Your task to perform on an android device: Open Google Chrome and open the bookmarks view Image 0: 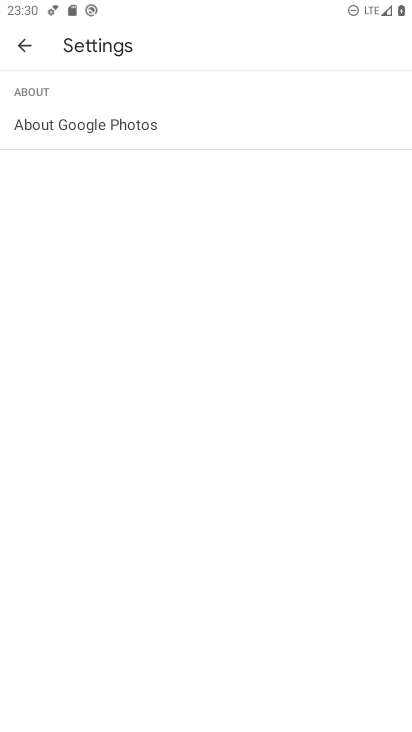
Step 0: press home button
Your task to perform on an android device: Open Google Chrome and open the bookmarks view Image 1: 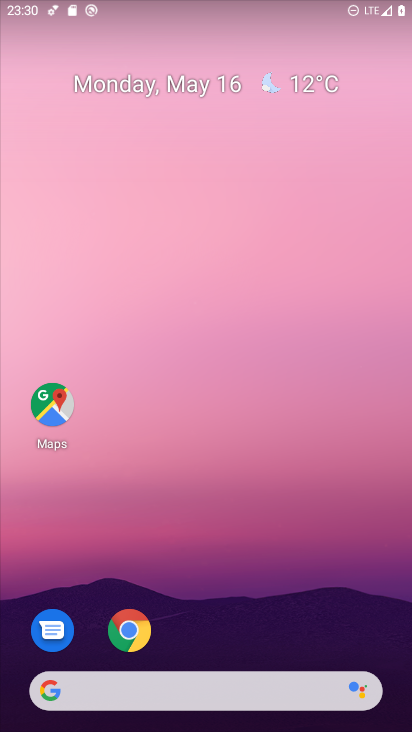
Step 1: drag from (257, 600) to (284, 120)
Your task to perform on an android device: Open Google Chrome and open the bookmarks view Image 2: 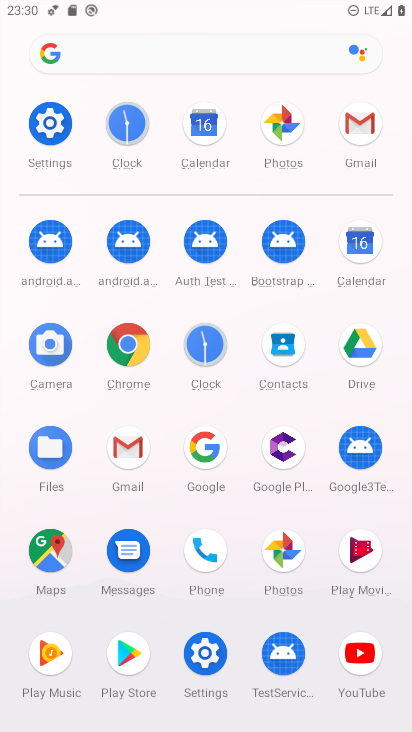
Step 2: click (136, 345)
Your task to perform on an android device: Open Google Chrome and open the bookmarks view Image 3: 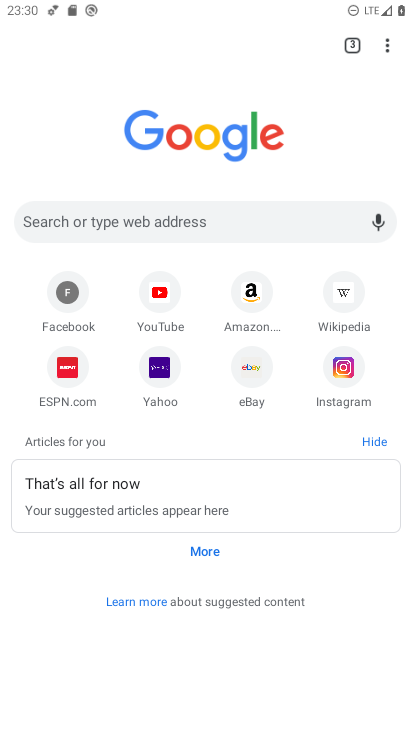
Step 3: click (386, 43)
Your task to perform on an android device: Open Google Chrome and open the bookmarks view Image 4: 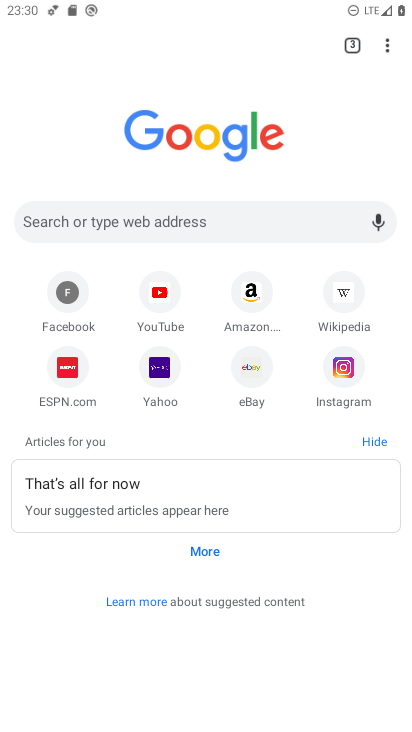
Step 4: click (381, 44)
Your task to perform on an android device: Open Google Chrome and open the bookmarks view Image 5: 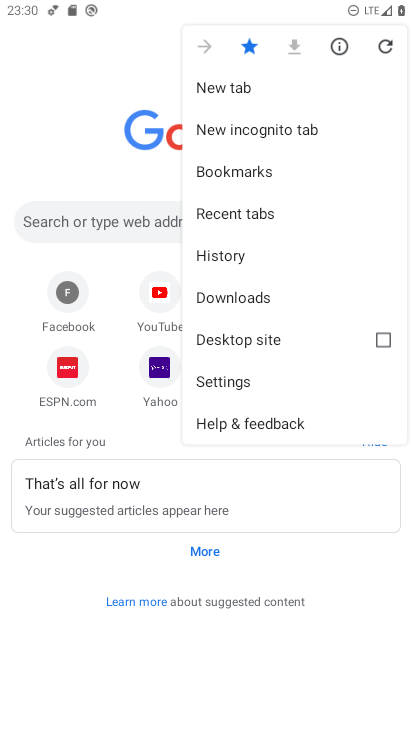
Step 5: click (285, 167)
Your task to perform on an android device: Open Google Chrome and open the bookmarks view Image 6: 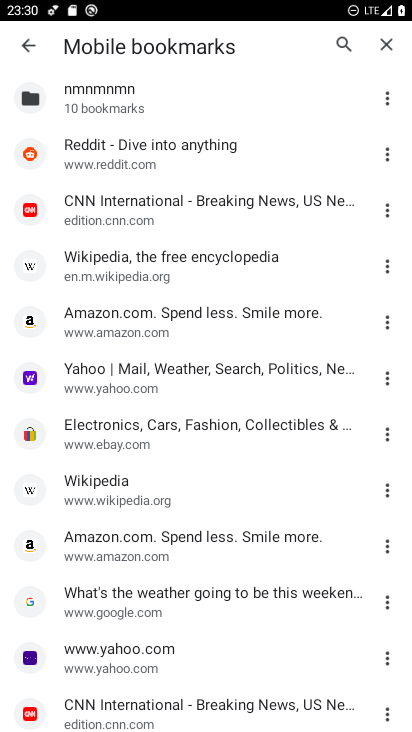
Step 6: task complete